Your task to perform on an android device: turn off priority inbox in the gmail app Image 0: 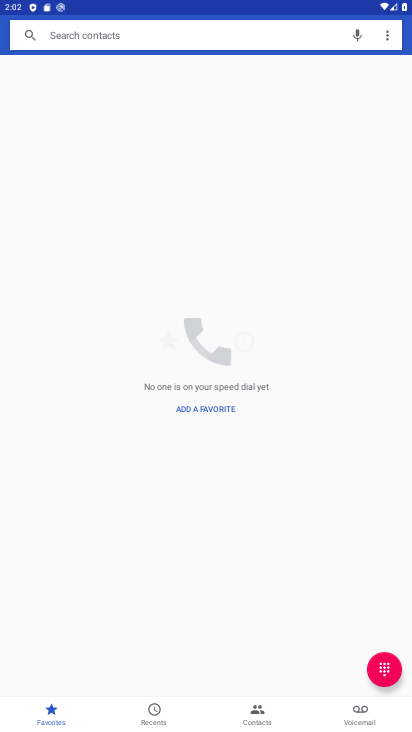
Step 0: press home button
Your task to perform on an android device: turn off priority inbox in the gmail app Image 1: 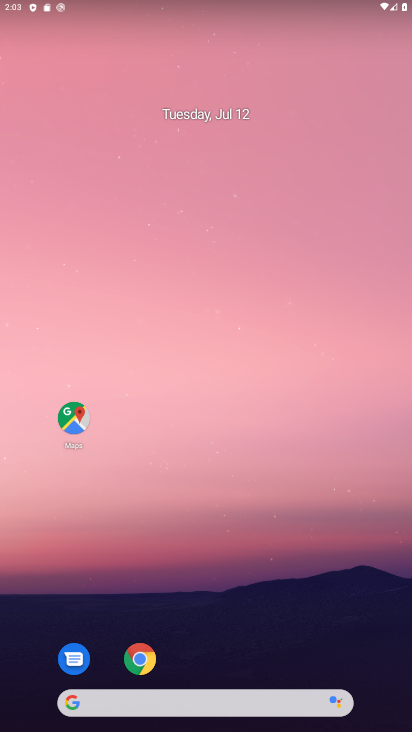
Step 1: drag from (273, 631) to (266, 4)
Your task to perform on an android device: turn off priority inbox in the gmail app Image 2: 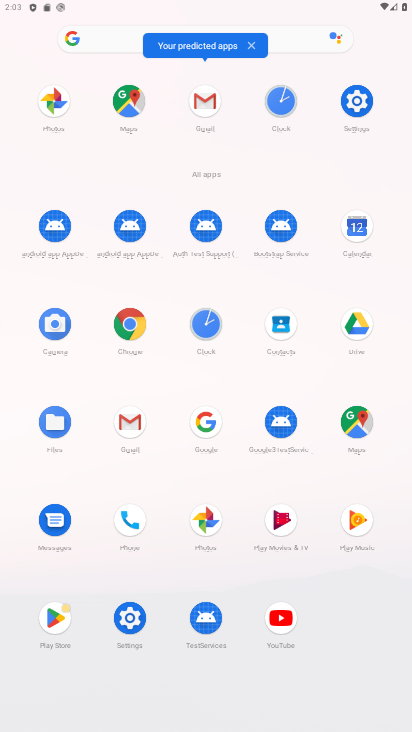
Step 2: click (197, 112)
Your task to perform on an android device: turn off priority inbox in the gmail app Image 3: 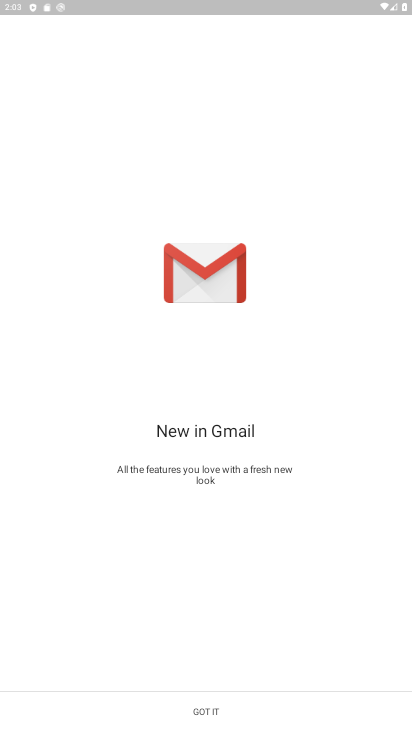
Step 3: click (225, 704)
Your task to perform on an android device: turn off priority inbox in the gmail app Image 4: 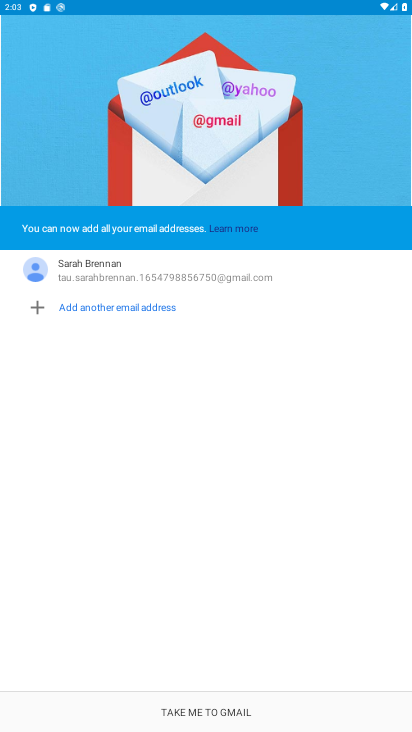
Step 4: click (209, 718)
Your task to perform on an android device: turn off priority inbox in the gmail app Image 5: 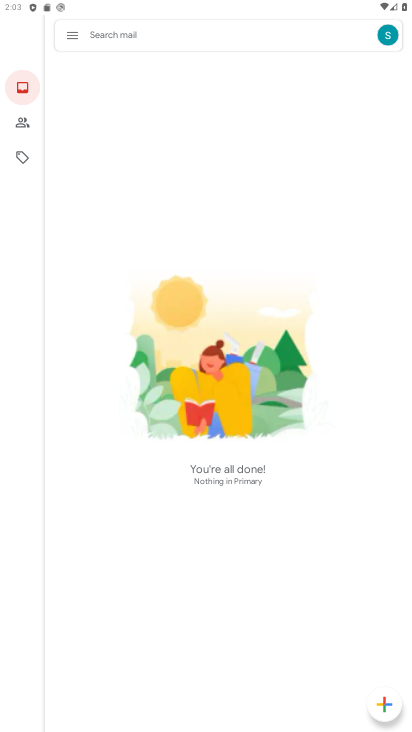
Step 5: click (72, 36)
Your task to perform on an android device: turn off priority inbox in the gmail app Image 6: 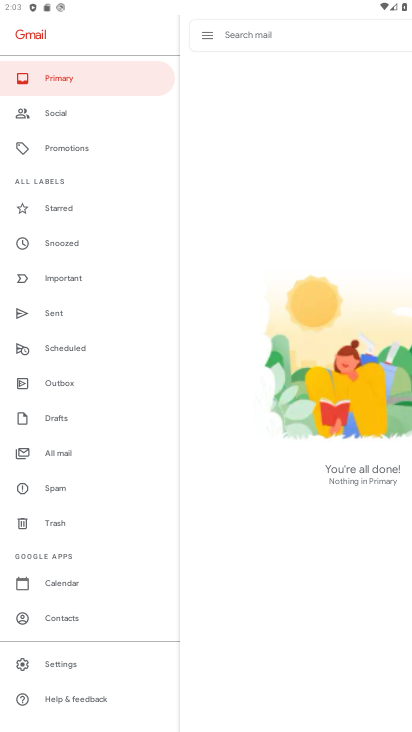
Step 6: click (70, 662)
Your task to perform on an android device: turn off priority inbox in the gmail app Image 7: 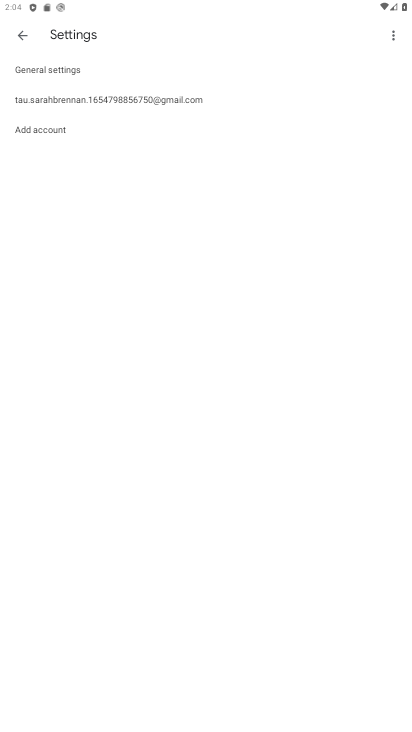
Step 7: click (209, 104)
Your task to perform on an android device: turn off priority inbox in the gmail app Image 8: 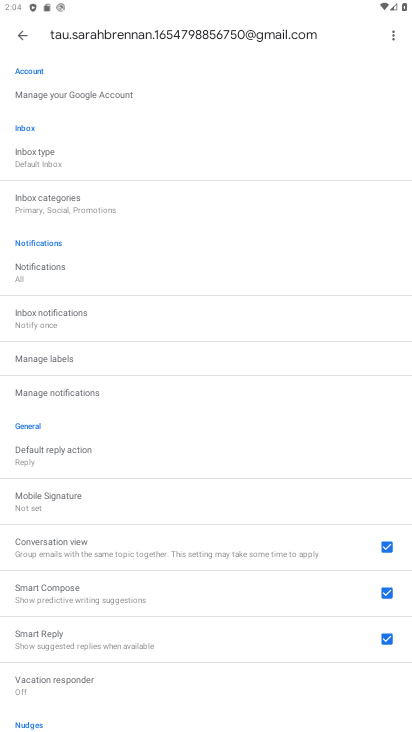
Step 8: click (91, 153)
Your task to perform on an android device: turn off priority inbox in the gmail app Image 9: 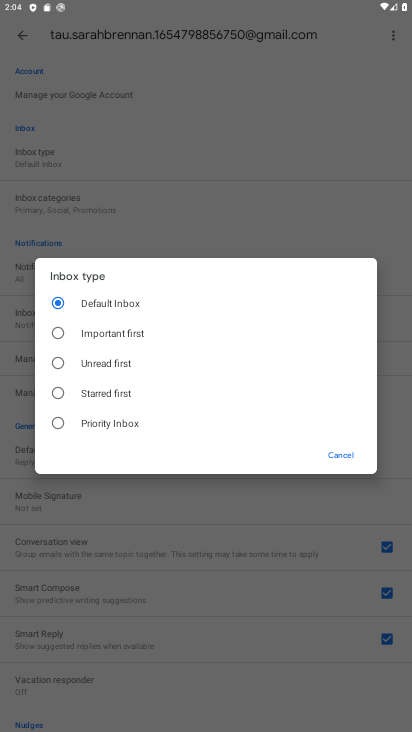
Step 9: click (119, 302)
Your task to perform on an android device: turn off priority inbox in the gmail app Image 10: 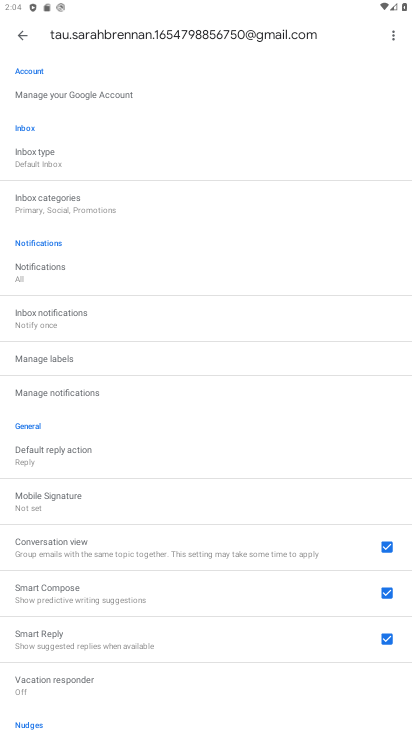
Step 10: task complete